Your task to perform on an android device: Do I have any events tomorrow? Image 0: 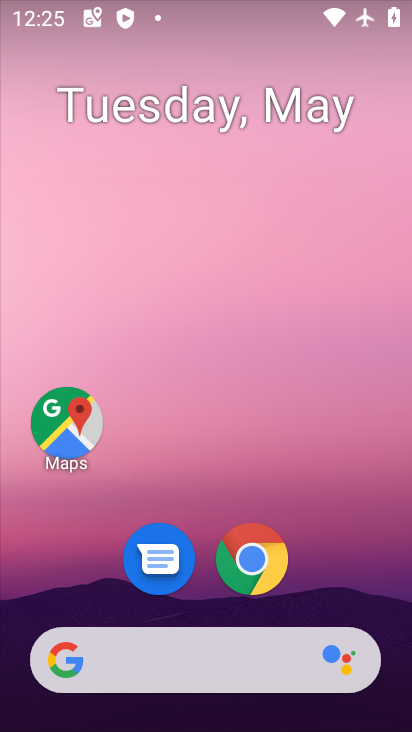
Step 0: drag from (368, 580) to (365, 213)
Your task to perform on an android device: Do I have any events tomorrow? Image 1: 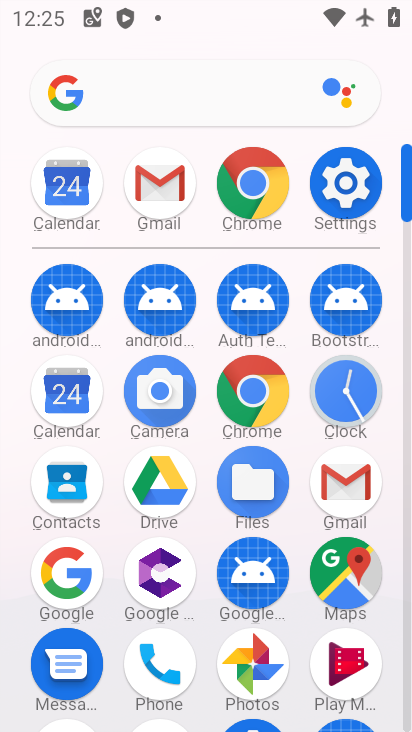
Step 1: click (57, 209)
Your task to perform on an android device: Do I have any events tomorrow? Image 2: 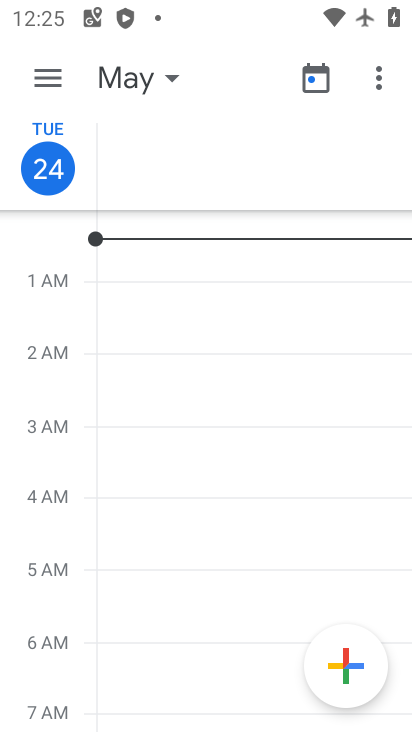
Step 2: task complete